Your task to perform on an android device: Is it going to rain today? Image 0: 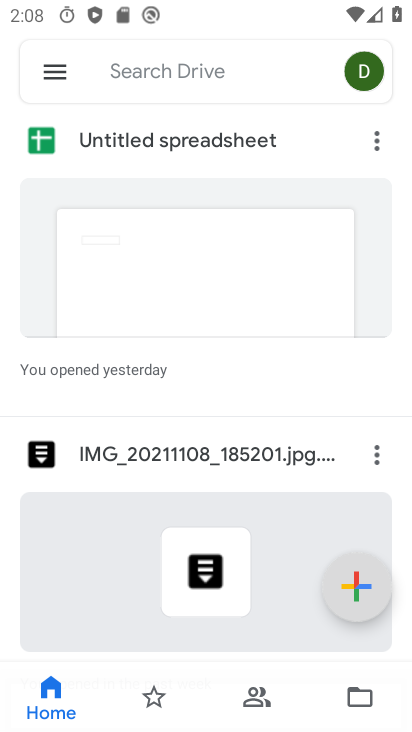
Step 0: press home button
Your task to perform on an android device: Is it going to rain today? Image 1: 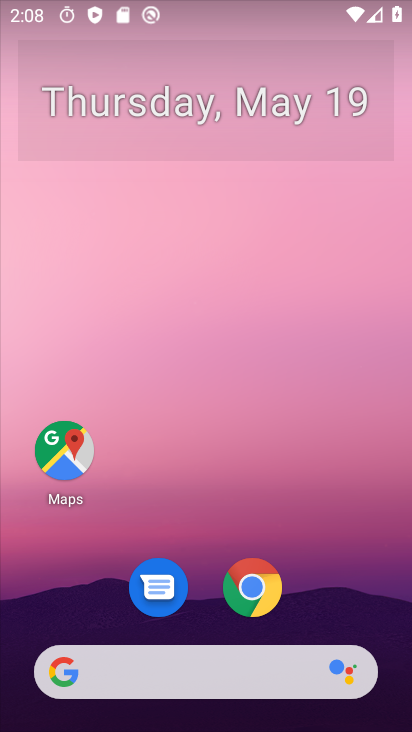
Step 1: drag from (193, 727) to (201, 115)
Your task to perform on an android device: Is it going to rain today? Image 2: 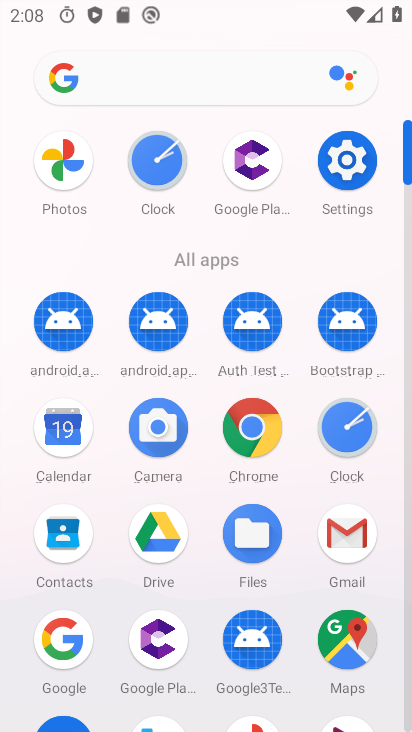
Step 2: click (67, 634)
Your task to perform on an android device: Is it going to rain today? Image 3: 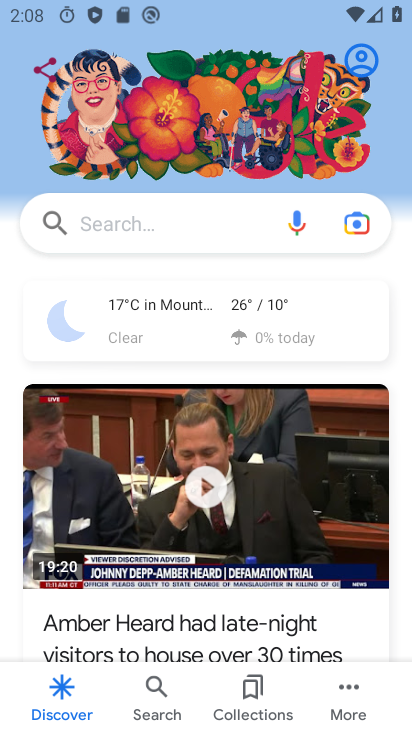
Step 3: click (212, 332)
Your task to perform on an android device: Is it going to rain today? Image 4: 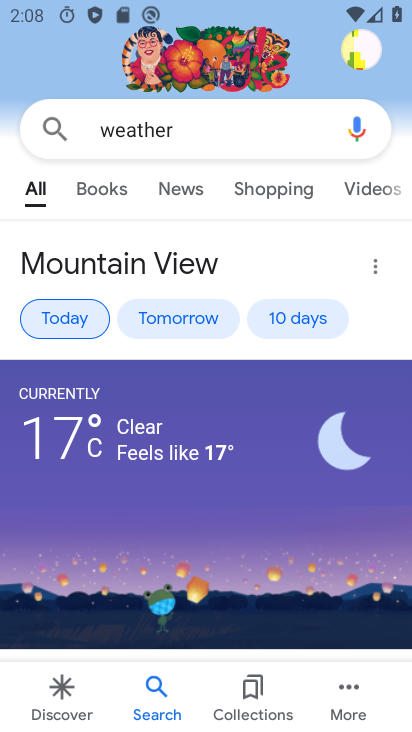
Step 4: click (63, 317)
Your task to perform on an android device: Is it going to rain today? Image 5: 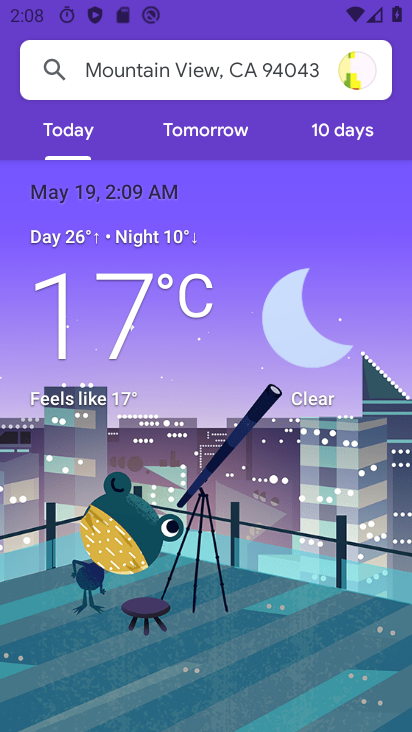
Step 5: task complete